Your task to perform on an android device: Go to CNN.com Image 0: 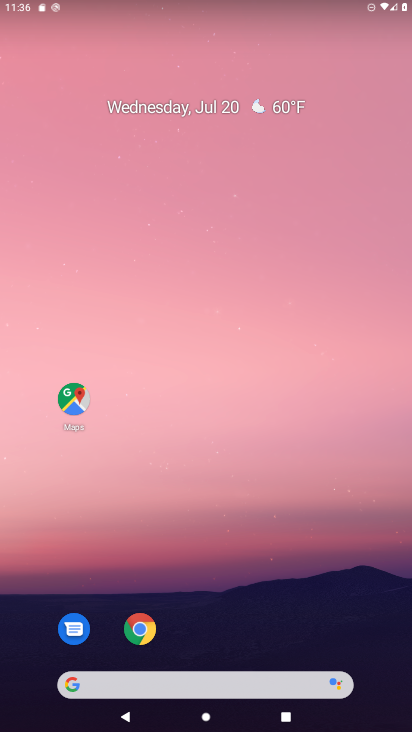
Step 0: click (143, 622)
Your task to perform on an android device: Go to CNN.com Image 1: 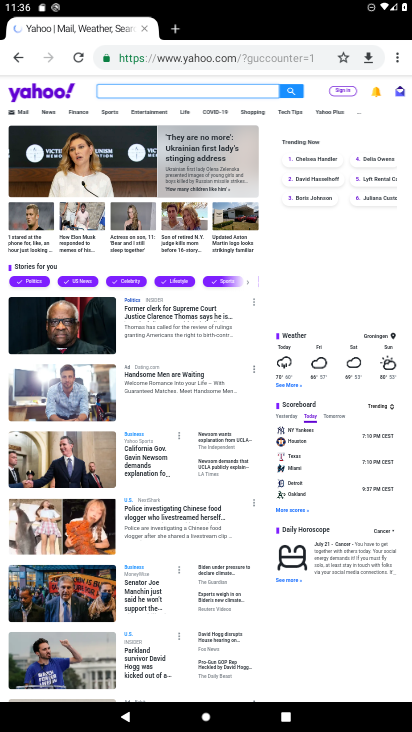
Step 1: click (177, 30)
Your task to perform on an android device: Go to CNN.com Image 2: 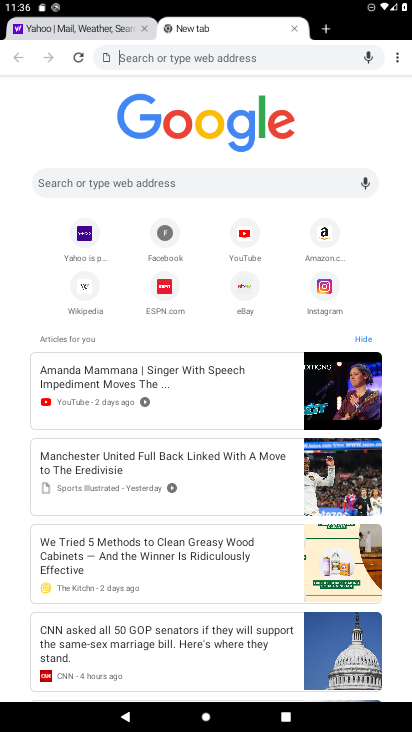
Step 2: type "CNN.com"
Your task to perform on an android device: Go to CNN.com Image 3: 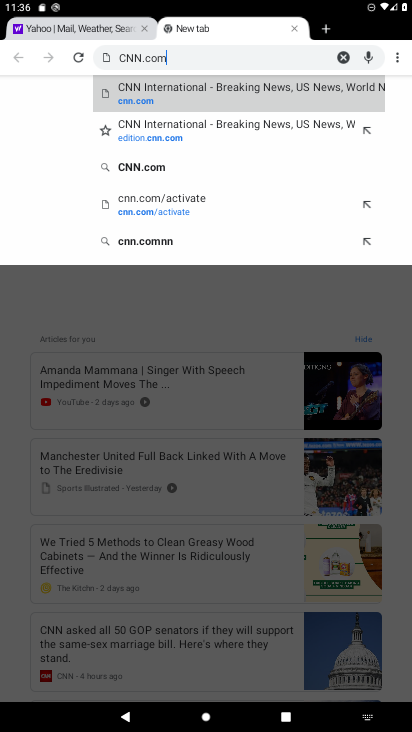
Step 3: click (186, 108)
Your task to perform on an android device: Go to CNN.com Image 4: 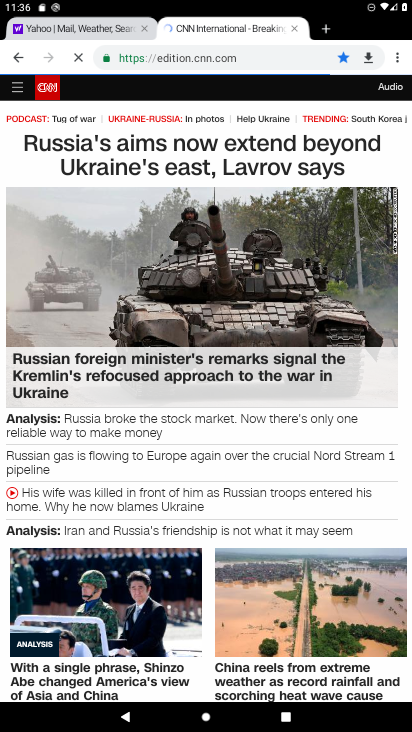
Step 4: task complete